Your task to perform on an android device: set default search engine in the chrome app Image 0: 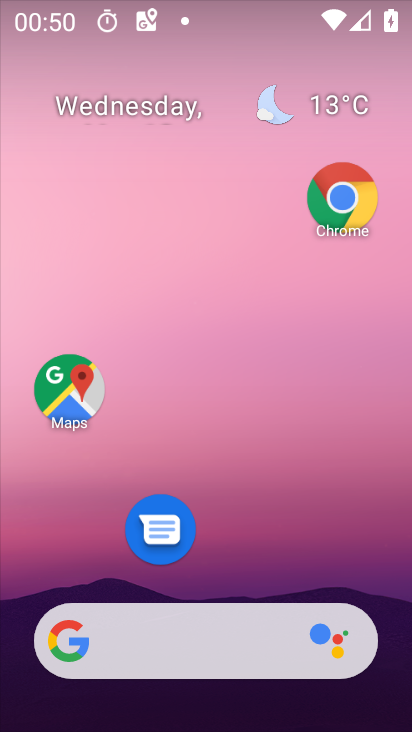
Step 0: click (346, 188)
Your task to perform on an android device: set default search engine in the chrome app Image 1: 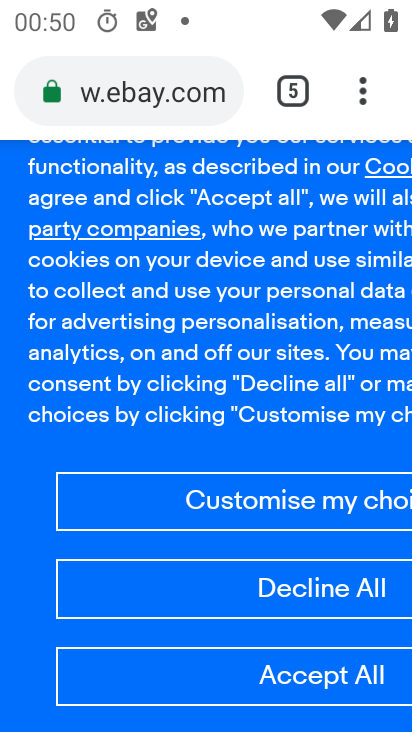
Step 1: click (377, 90)
Your task to perform on an android device: set default search engine in the chrome app Image 2: 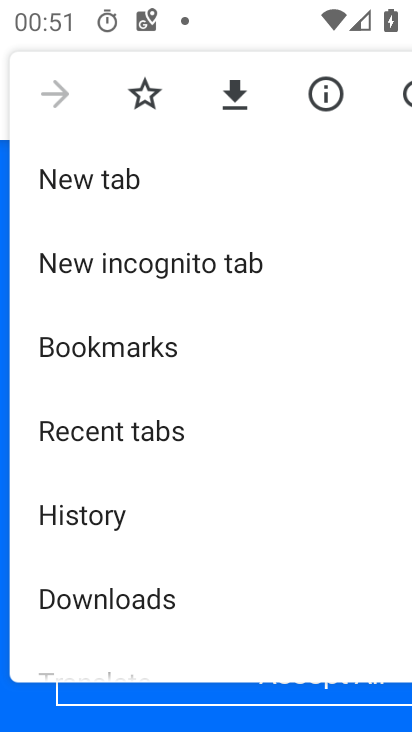
Step 2: drag from (115, 639) to (206, 328)
Your task to perform on an android device: set default search engine in the chrome app Image 3: 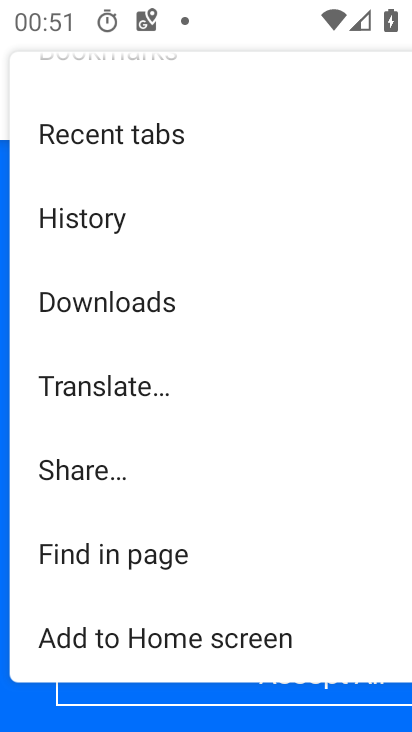
Step 3: drag from (74, 606) to (116, 422)
Your task to perform on an android device: set default search engine in the chrome app Image 4: 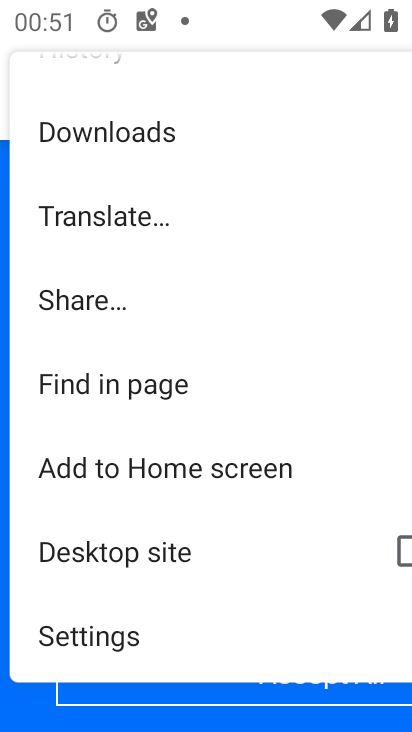
Step 4: click (67, 630)
Your task to perform on an android device: set default search engine in the chrome app Image 5: 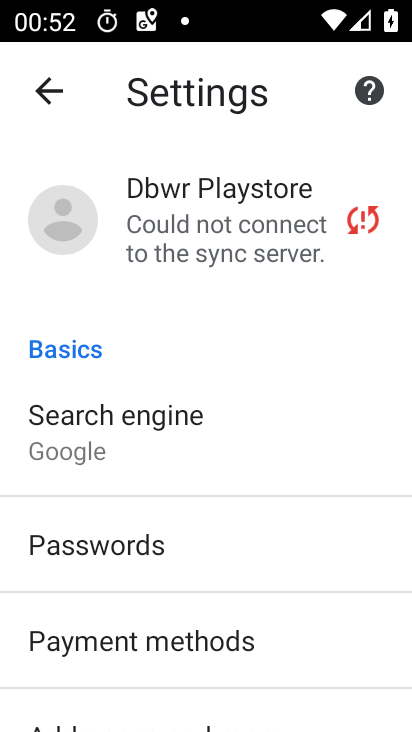
Step 5: click (64, 442)
Your task to perform on an android device: set default search engine in the chrome app Image 6: 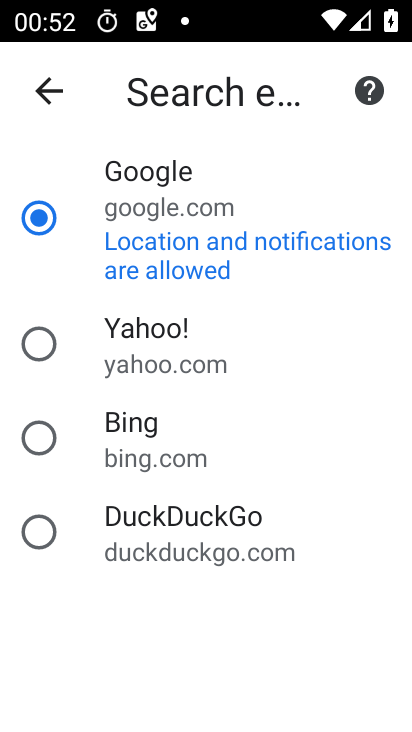
Step 6: click (186, 326)
Your task to perform on an android device: set default search engine in the chrome app Image 7: 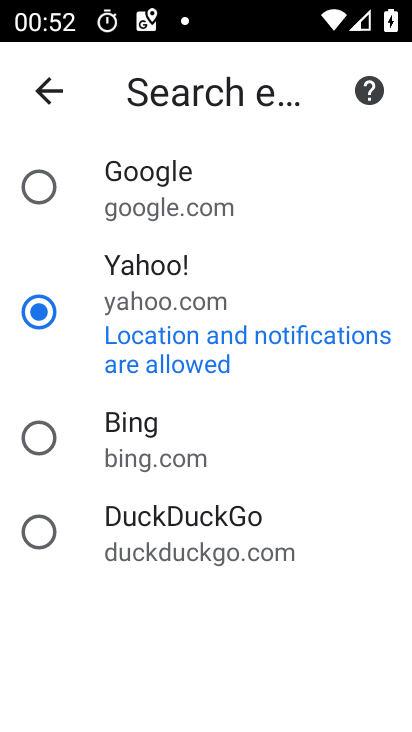
Step 7: task complete